Your task to perform on an android device: Open the web browser Image 0: 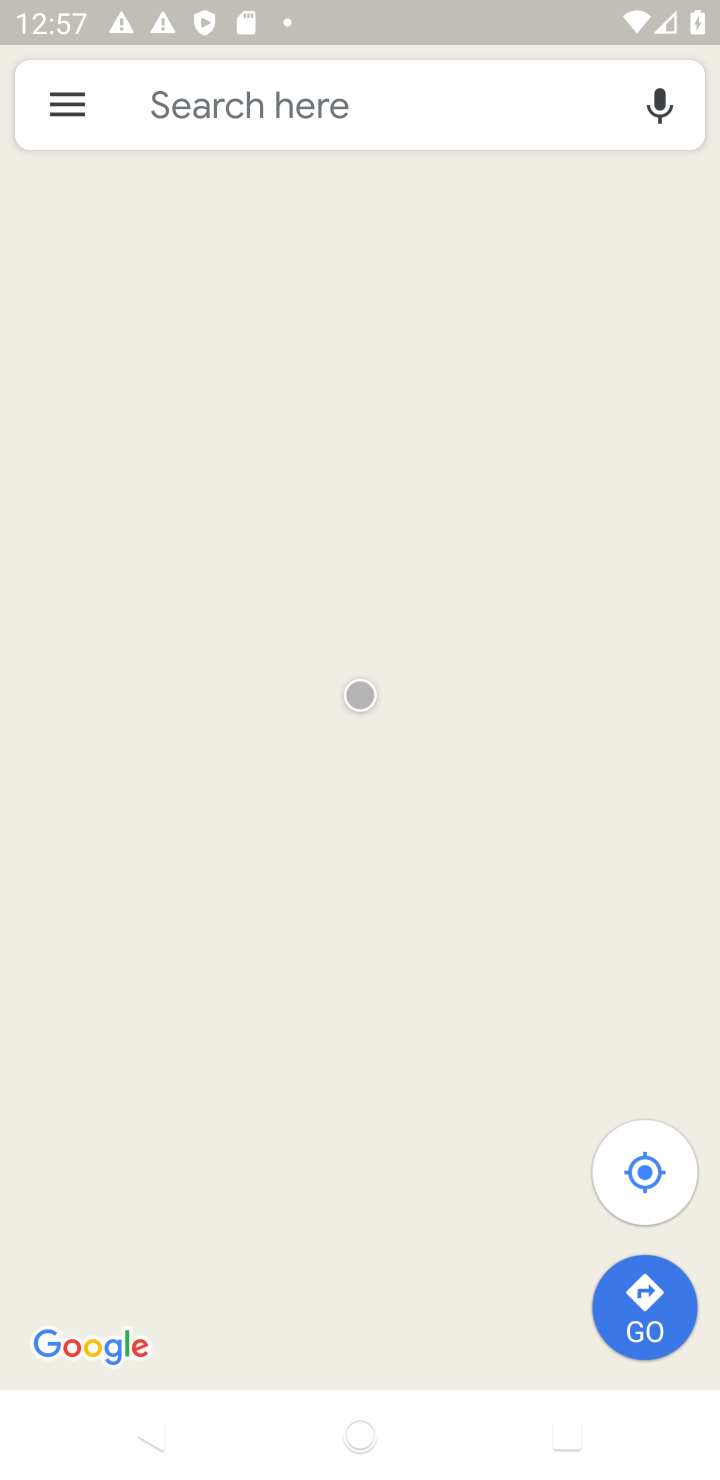
Step 0: press home button
Your task to perform on an android device: Open the web browser Image 1: 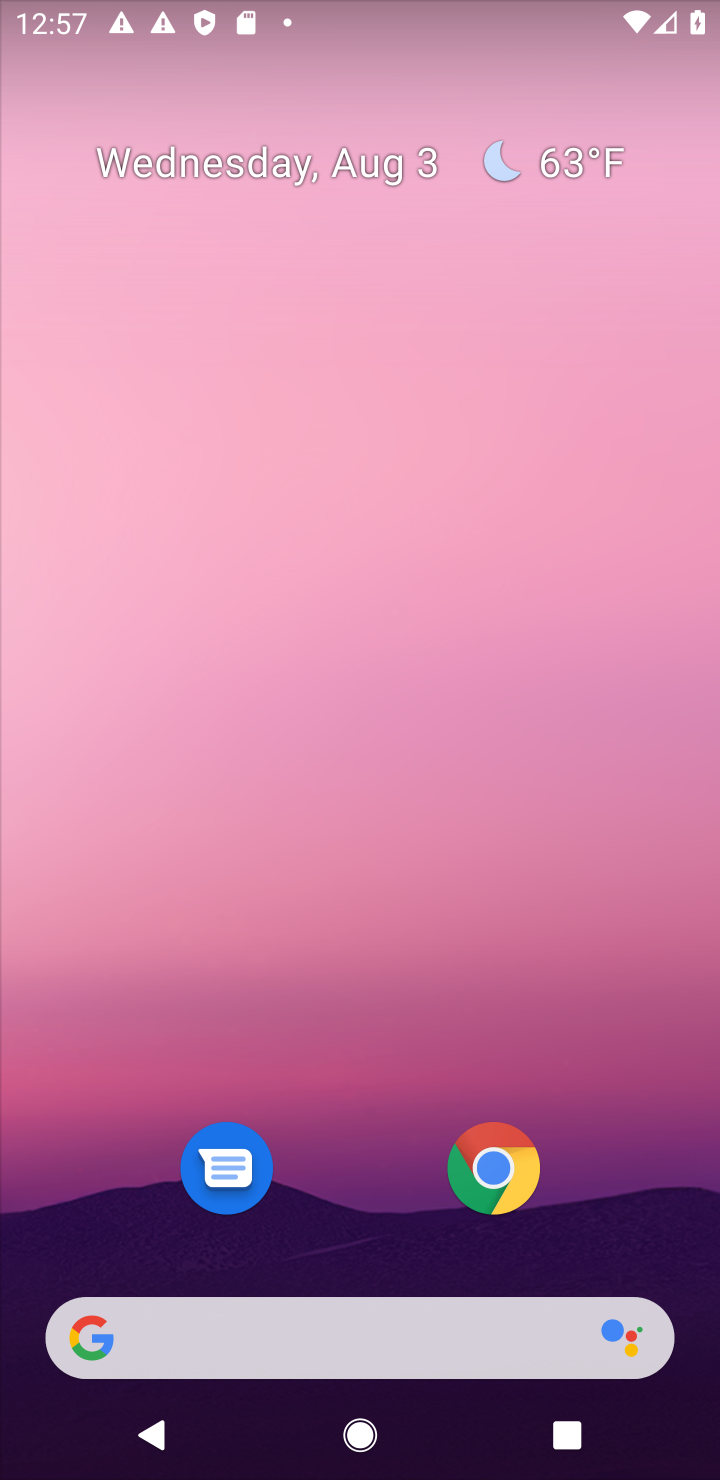
Step 1: click (501, 1170)
Your task to perform on an android device: Open the web browser Image 2: 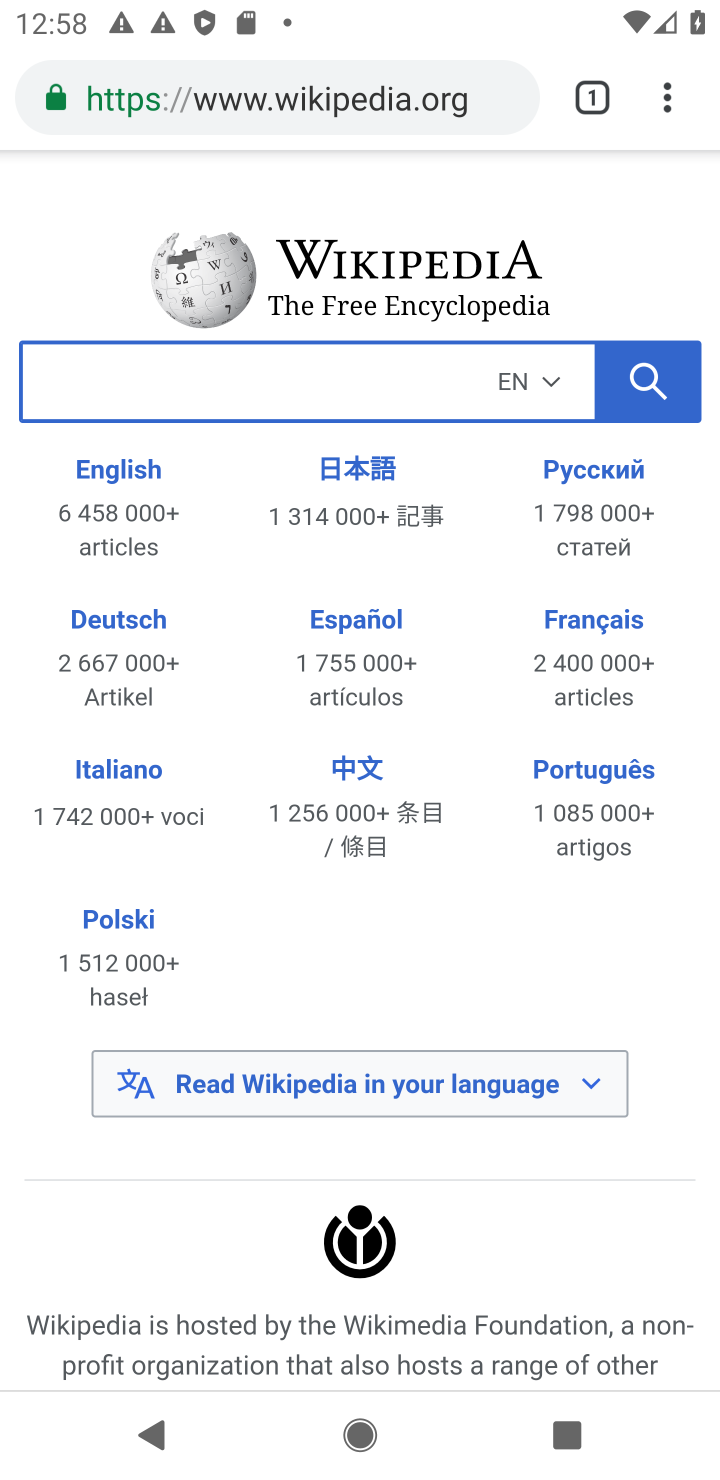
Step 2: task complete